Your task to perform on an android device: toggle translation in the chrome app Image 0: 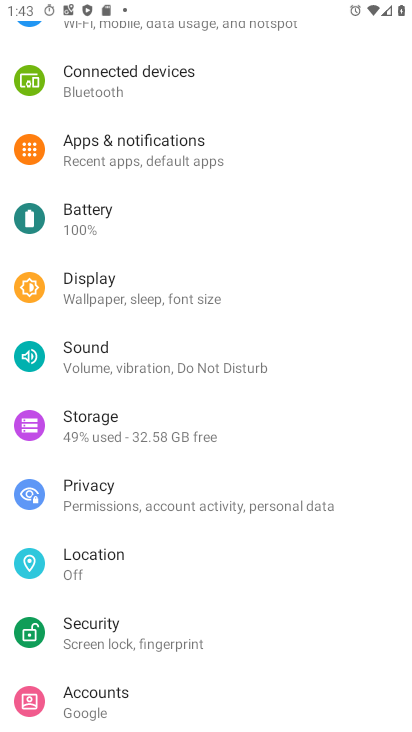
Step 0: press home button
Your task to perform on an android device: toggle translation in the chrome app Image 1: 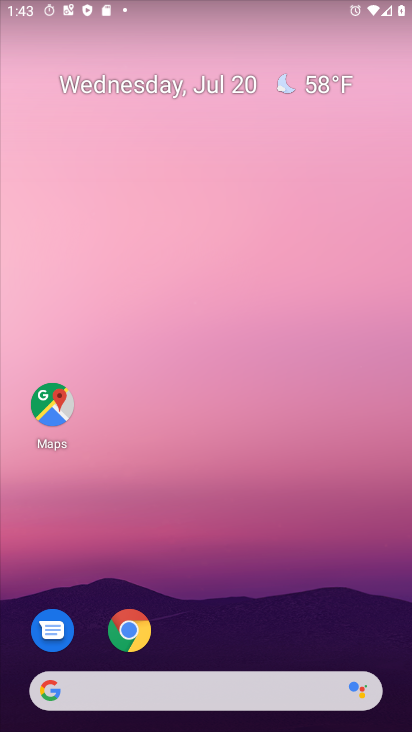
Step 1: click (133, 632)
Your task to perform on an android device: toggle translation in the chrome app Image 2: 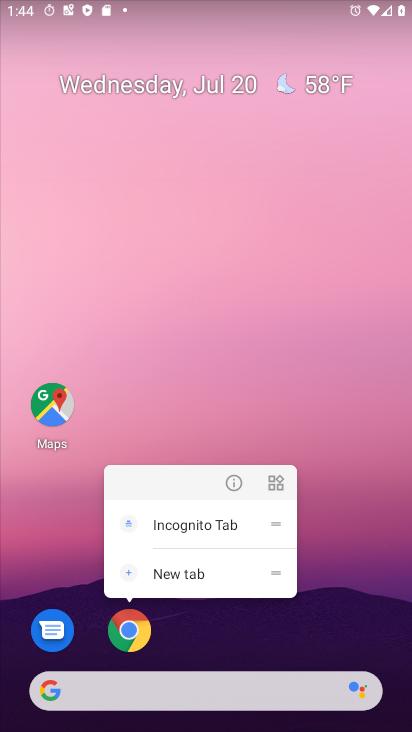
Step 2: click (128, 637)
Your task to perform on an android device: toggle translation in the chrome app Image 3: 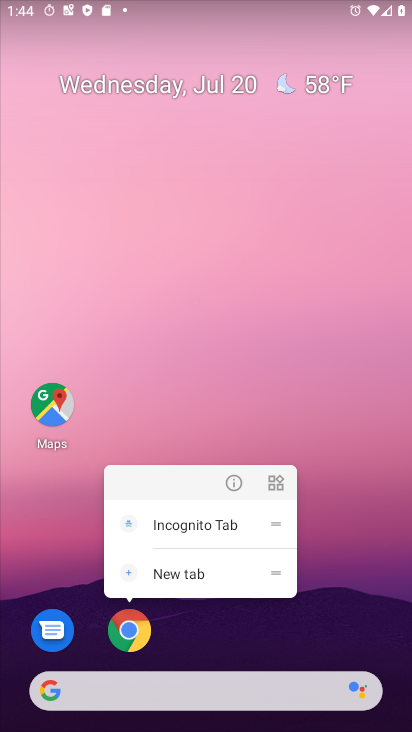
Step 3: click (128, 637)
Your task to perform on an android device: toggle translation in the chrome app Image 4: 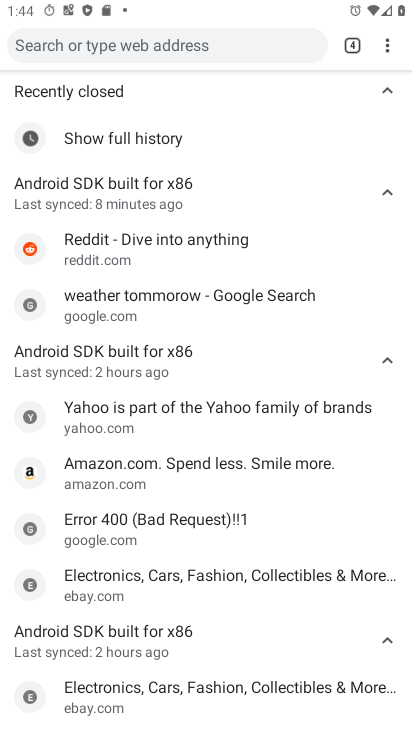
Step 4: drag from (386, 42) to (291, 376)
Your task to perform on an android device: toggle translation in the chrome app Image 5: 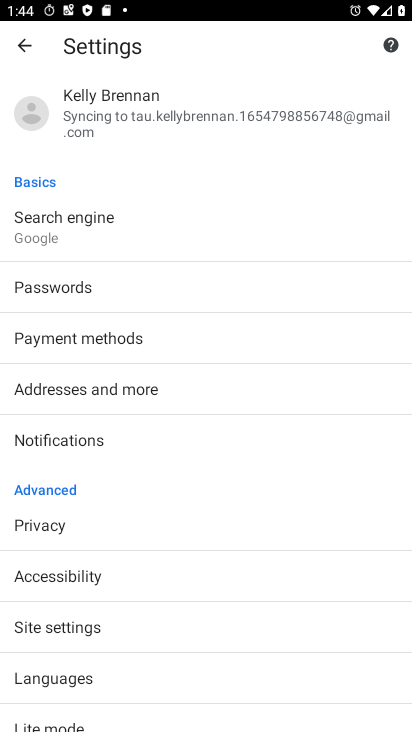
Step 5: drag from (198, 588) to (262, 295)
Your task to perform on an android device: toggle translation in the chrome app Image 6: 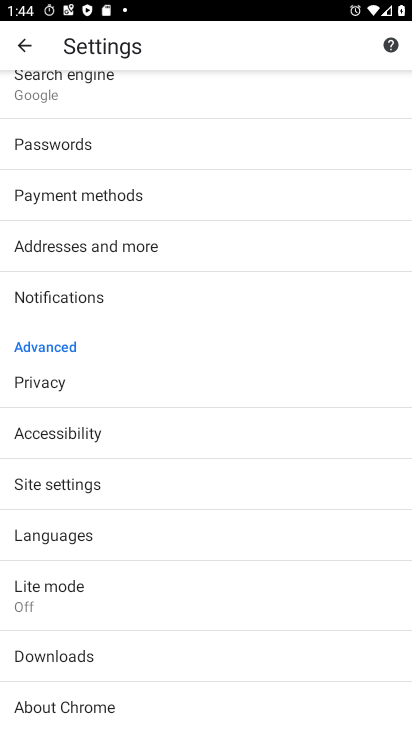
Step 6: click (114, 538)
Your task to perform on an android device: toggle translation in the chrome app Image 7: 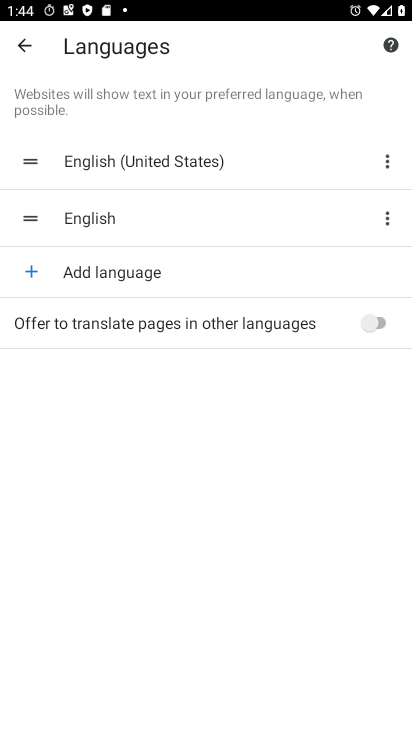
Step 7: click (376, 317)
Your task to perform on an android device: toggle translation in the chrome app Image 8: 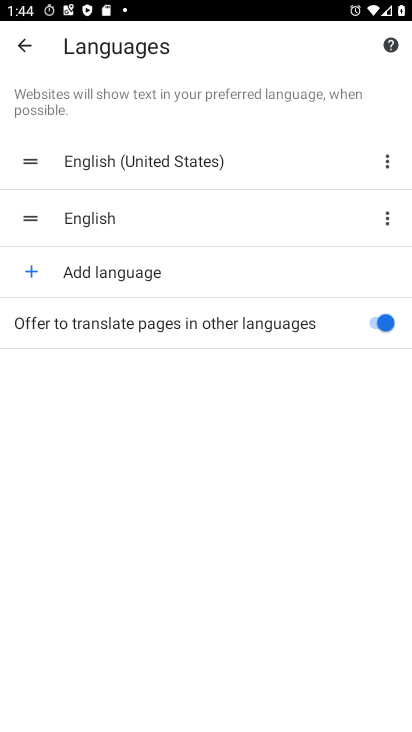
Step 8: task complete